Your task to perform on an android device: Open calendar and show me the second week of next month Image 0: 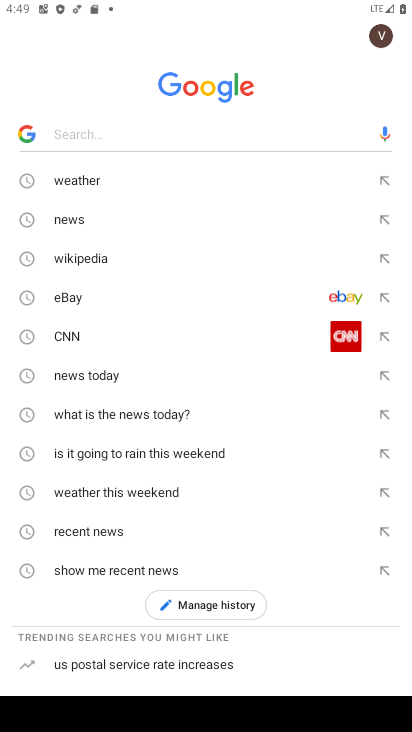
Step 0: press home button
Your task to perform on an android device: Open calendar and show me the second week of next month Image 1: 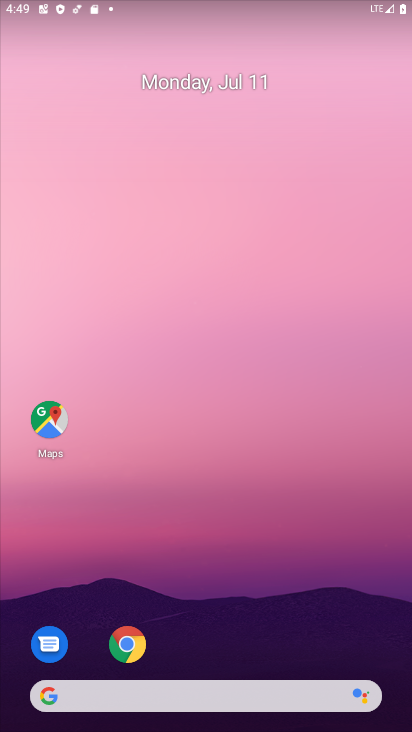
Step 1: press home button
Your task to perform on an android device: Open calendar and show me the second week of next month Image 2: 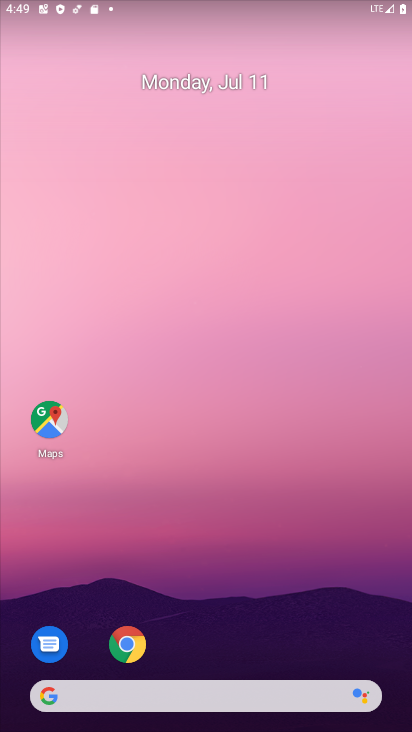
Step 2: drag from (297, 599) to (333, 278)
Your task to perform on an android device: Open calendar and show me the second week of next month Image 3: 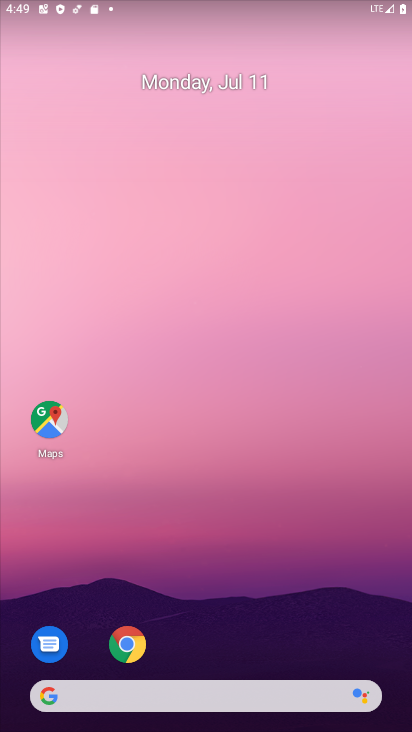
Step 3: drag from (253, 657) to (221, 105)
Your task to perform on an android device: Open calendar and show me the second week of next month Image 4: 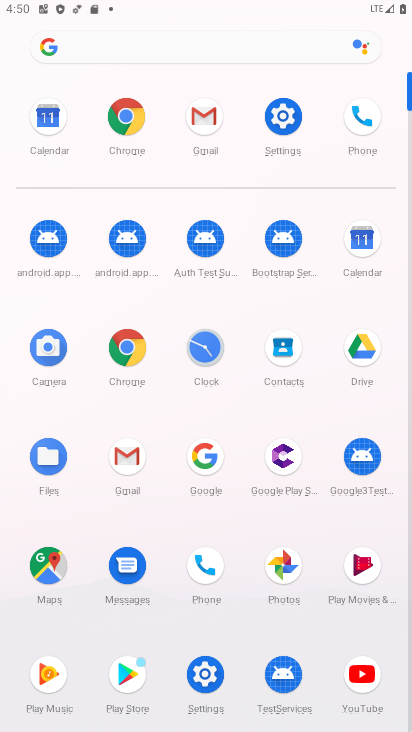
Step 4: click (364, 244)
Your task to perform on an android device: Open calendar and show me the second week of next month Image 5: 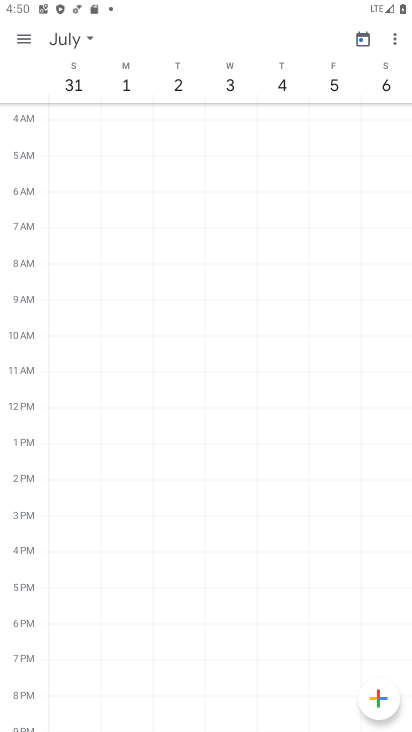
Step 5: click (88, 37)
Your task to perform on an android device: Open calendar and show me the second week of next month Image 6: 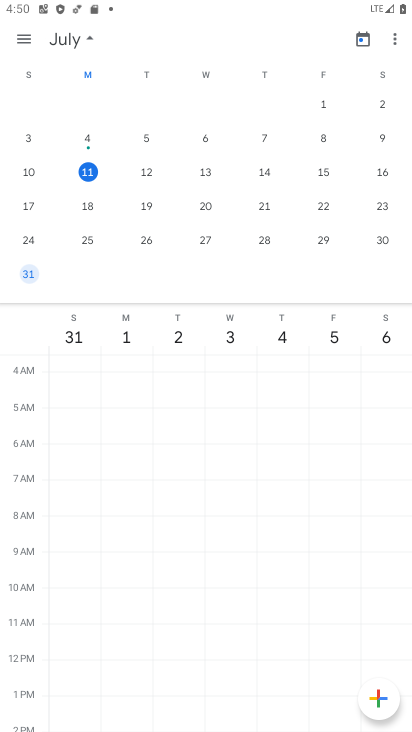
Step 6: drag from (229, 194) to (4, 226)
Your task to perform on an android device: Open calendar and show me the second week of next month Image 7: 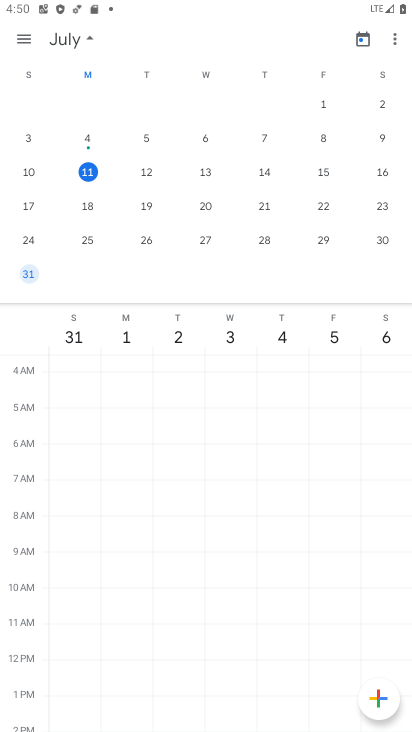
Step 7: drag from (255, 115) to (8, 111)
Your task to perform on an android device: Open calendar and show me the second week of next month Image 8: 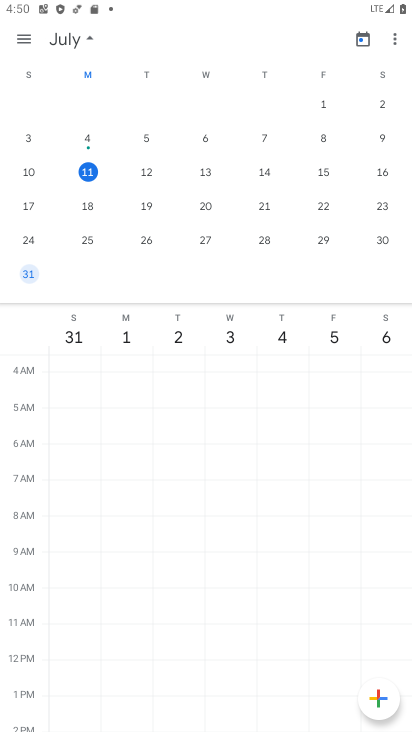
Step 8: drag from (258, 124) to (7, 189)
Your task to perform on an android device: Open calendar and show me the second week of next month Image 9: 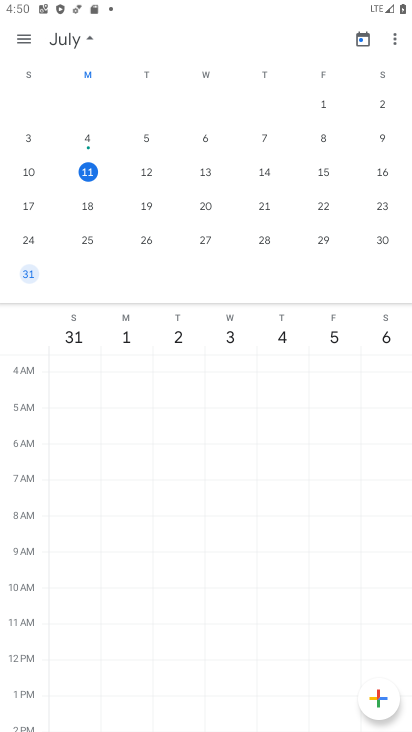
Step 9: drag from (262, 166) to (8, 94)
Your task to perform on an android device: Open calendar and show me the second week of next month Image 10: 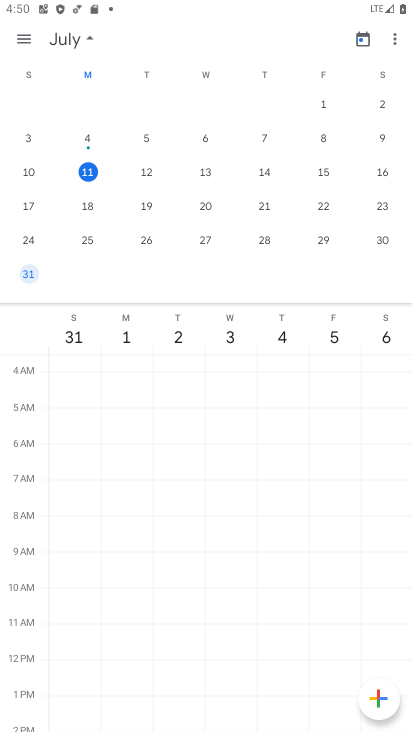
Step 10: click (82, 39)
Your task to perform on an android device: Open calendar and show me the second week of next month Image 11: 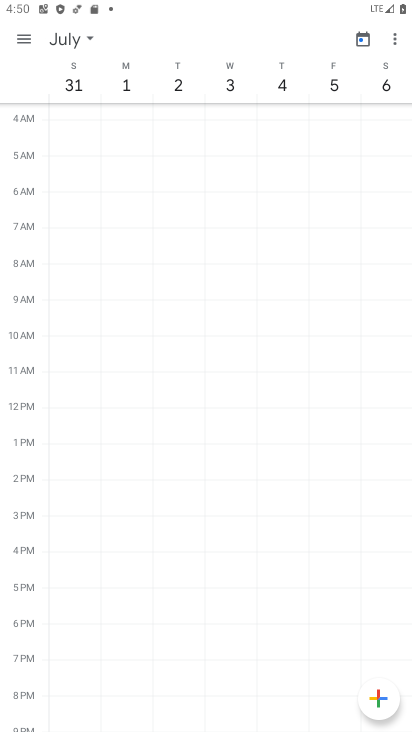
Step 11: drag from (251, 88) to (0, 197)
Your task to perform on an android device: Open calendar and show me the second week of next month Image 12: 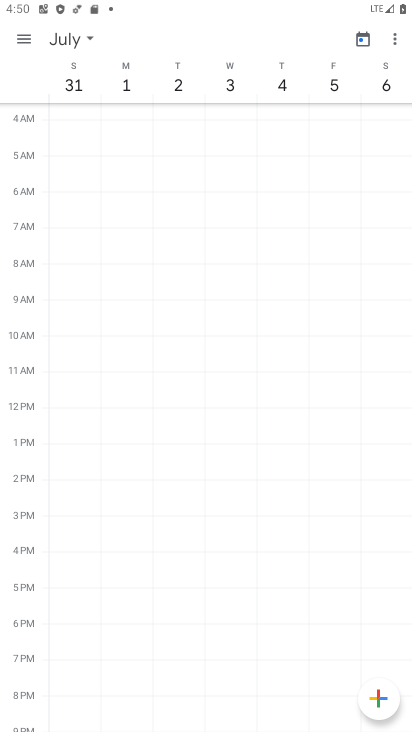
Step 12: drag from (78, 60) to (288, 52)
Your task to perform on an android device: Open calendar and show me the second week of next month Image 13: 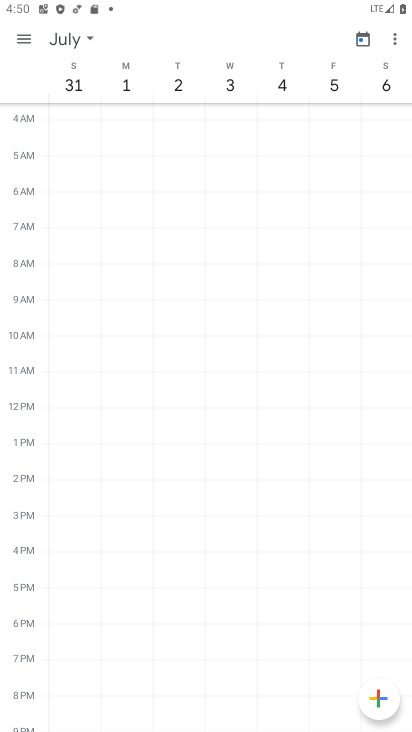
Step 13: drag from (198, 62) to (2, 53)
Your task to perform on an android device: Open calendar and show me the second week of next month Image 14: 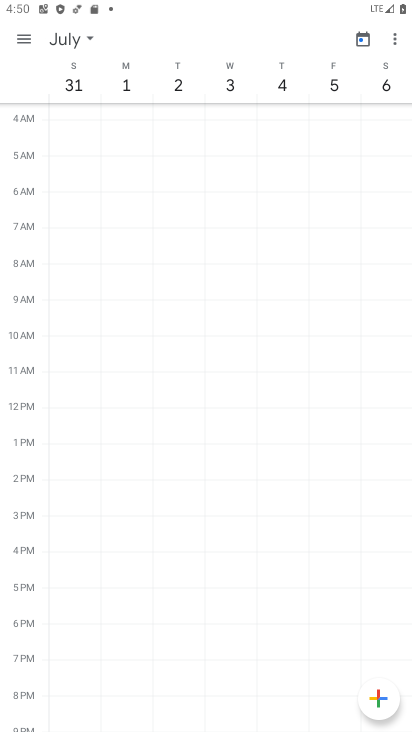
Step 14: click (97, 40)
Your task to perform on an android device: Open calendar and show me the second week of next month Image 15: 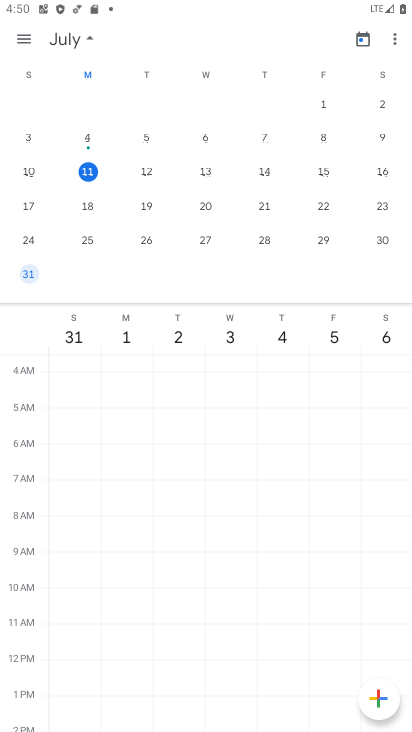
Step 15: drag from (203, 103) to (52, 83)
Your task to perform on an android device: Open calendar and show me the second week of next month Image 16: 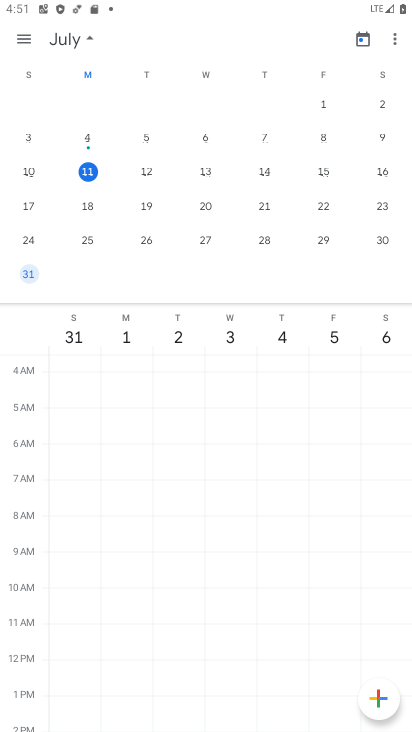
Step 16: drag from (269, 146) to (21, 192)
Your task to perform on an android device: Open calendar and show me the second week of next month Image 17: 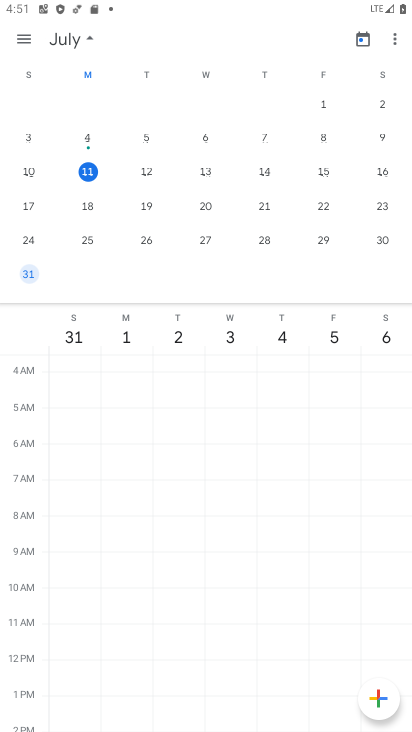
Step 17: drag from (297, 167) to (14, 195)
Your task to perform on an android device: Open calendar and show me the second week of next month Image 18: 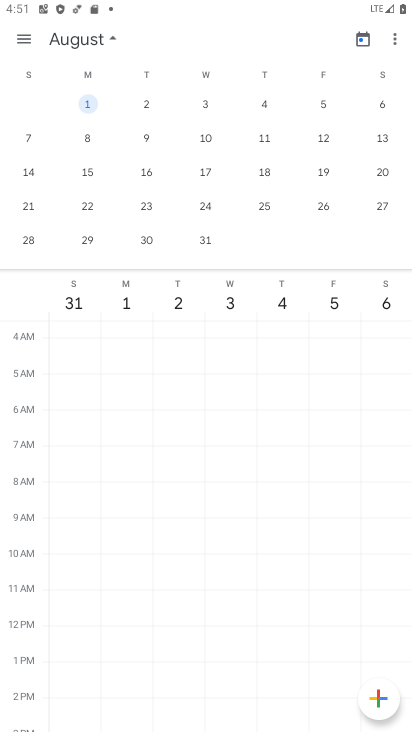
Step 18: click (213, 141)
Your task to perform on an android device: Open calendar and show me the second week of next month Image 19: 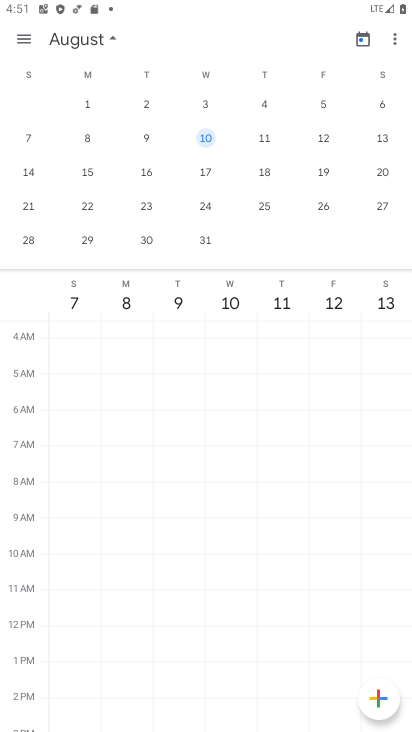
Step 19: click (27, 38)
Your task to perform on an android device: Open calendar and show me the second week of next month Image 20: 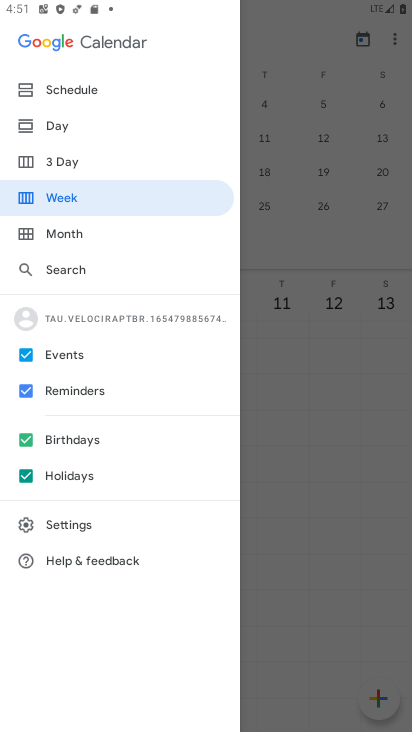
Step 20: click (81, 208)
Your task to perform on an android device: Open calendar and show me the second week of next month Image 21: 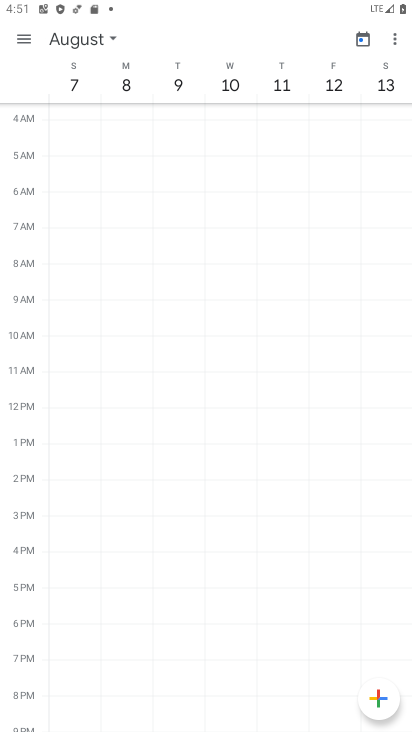
Step 21: task complete